Your task to perform on an android device: Empty the shopping cart on bestbuy. Search for "razer blade" on bestbuy, select the first entry, add it to the cart, then select checkout. Image 0: 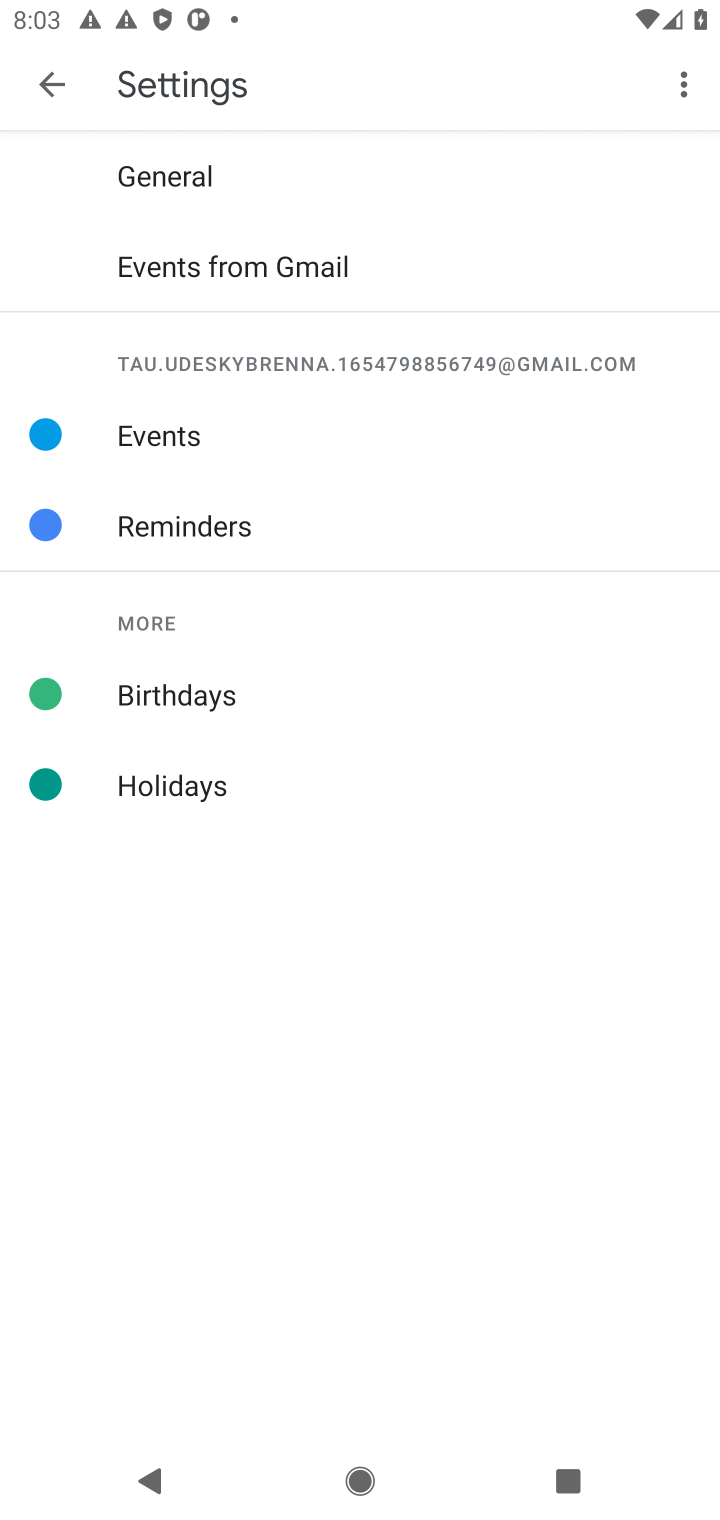
Step 0: press home button
Your task to perform on an android device: Empty the shopping cart on bestbuy. Search for "razer blade" on bestbuy, select the first entry, add it to the cart, then select checkout. Image 1: 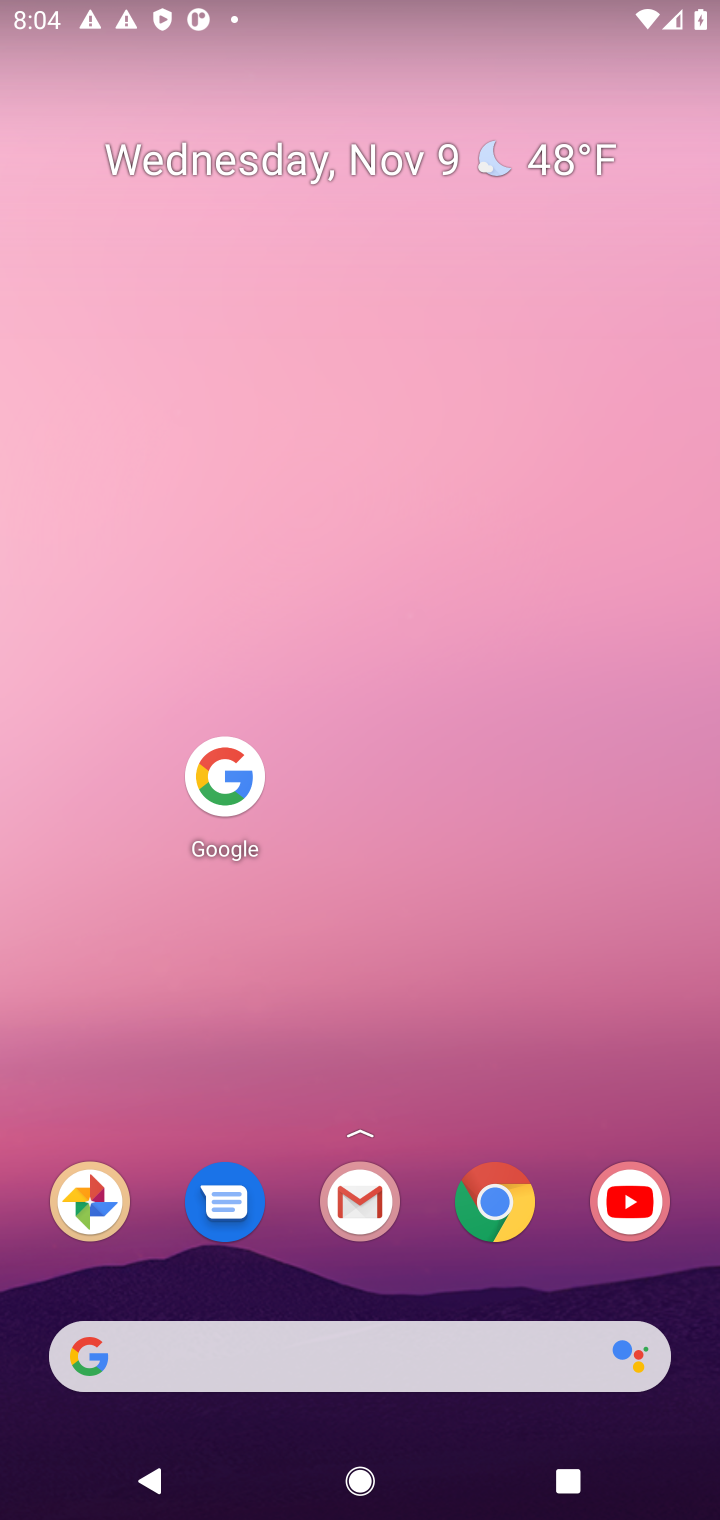
Step 1: click (242, 777)
Your task to perform on an android device: Empty the shopping cart on bestbuy. Search for "razer blade" on bestbuy, select the first entry, add it to the cart, then select checkout. Image 2: 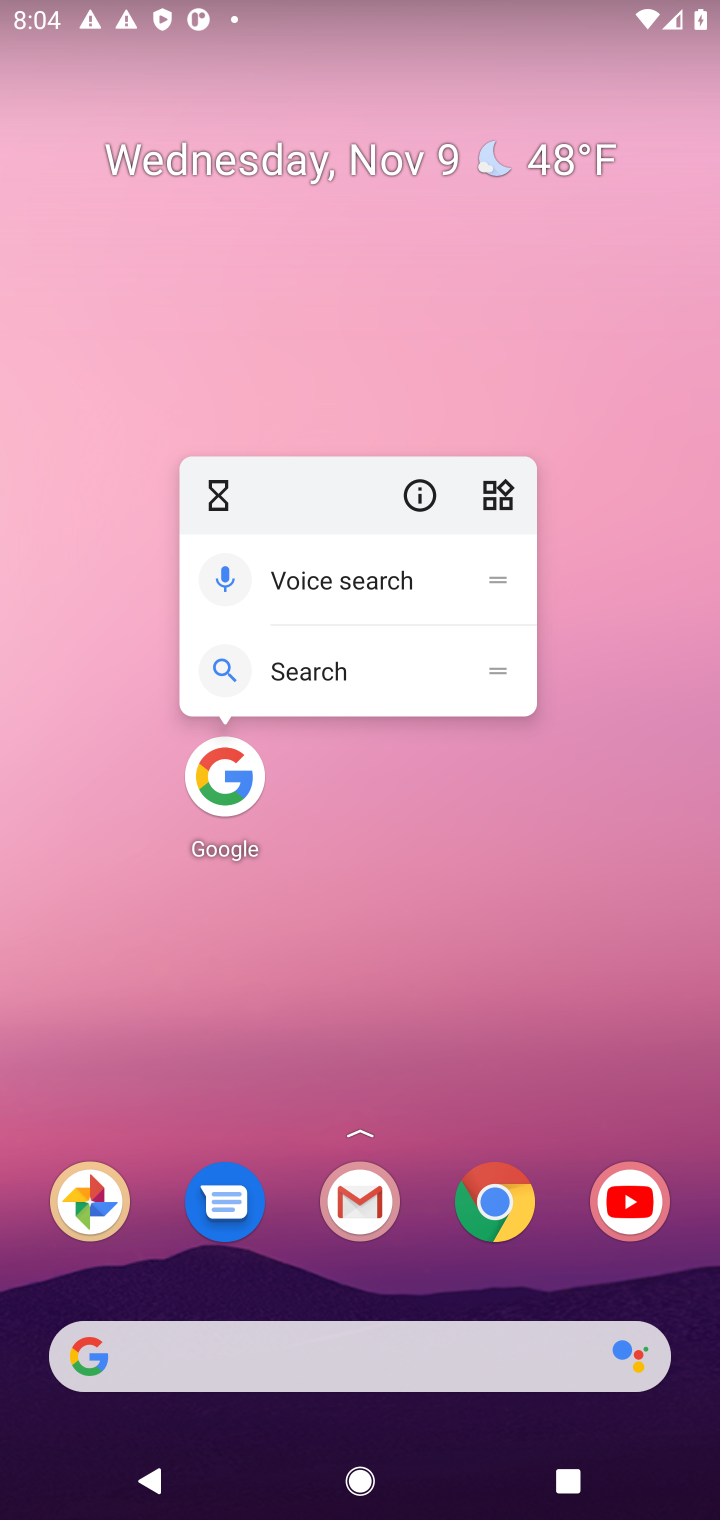
Step 2: click (246, 773)
Your task to perform on an android device: Empty the shopping cart on bestbuy. Search for "razer blade" on bestbuy, select the first entry, add it to the cart, then select checkout. Image 3: 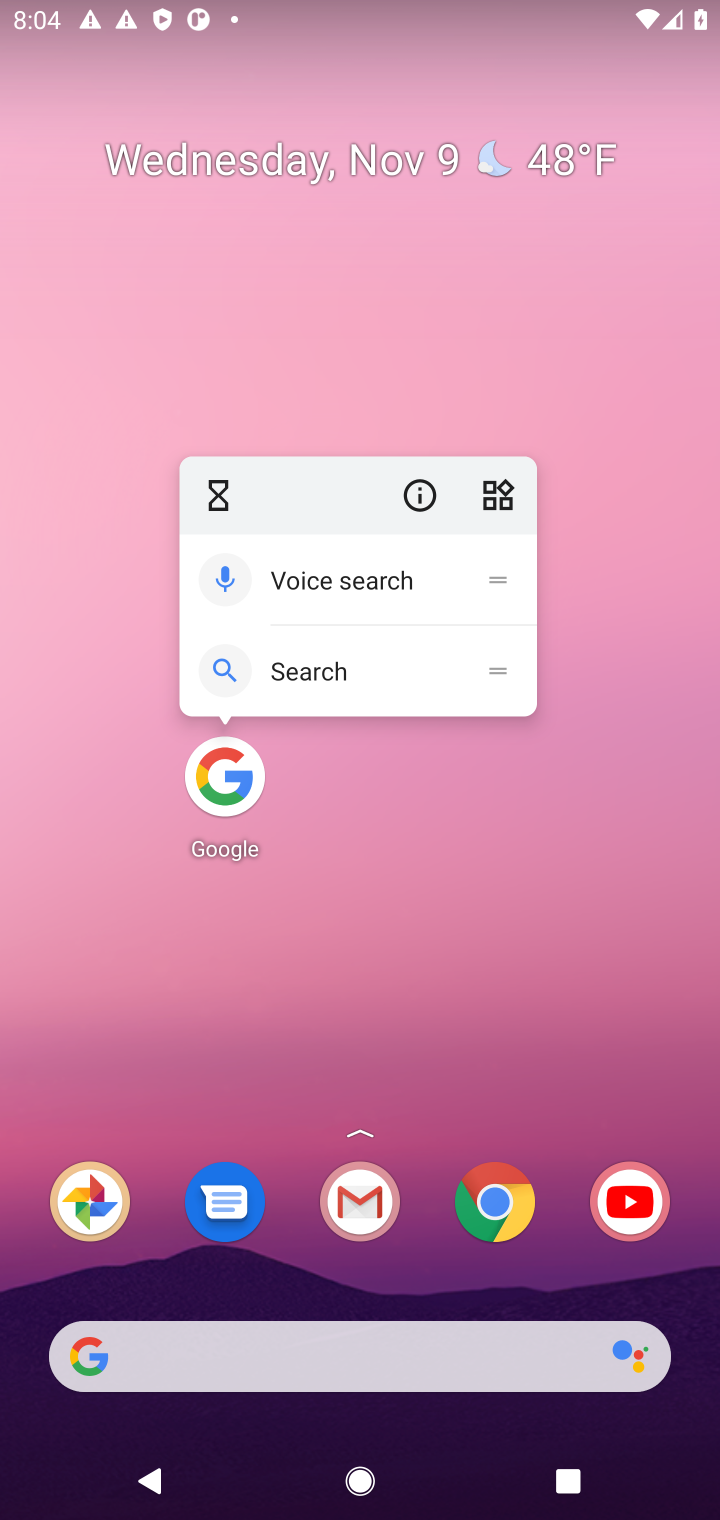
Step 3: click (225, 761)
Your task to perform on an android device: Empty the shopping cart on bestbuy. Search for "razer blade" on bestbuy, select the first entry, add it to the cart, then select checkout. Image 4: 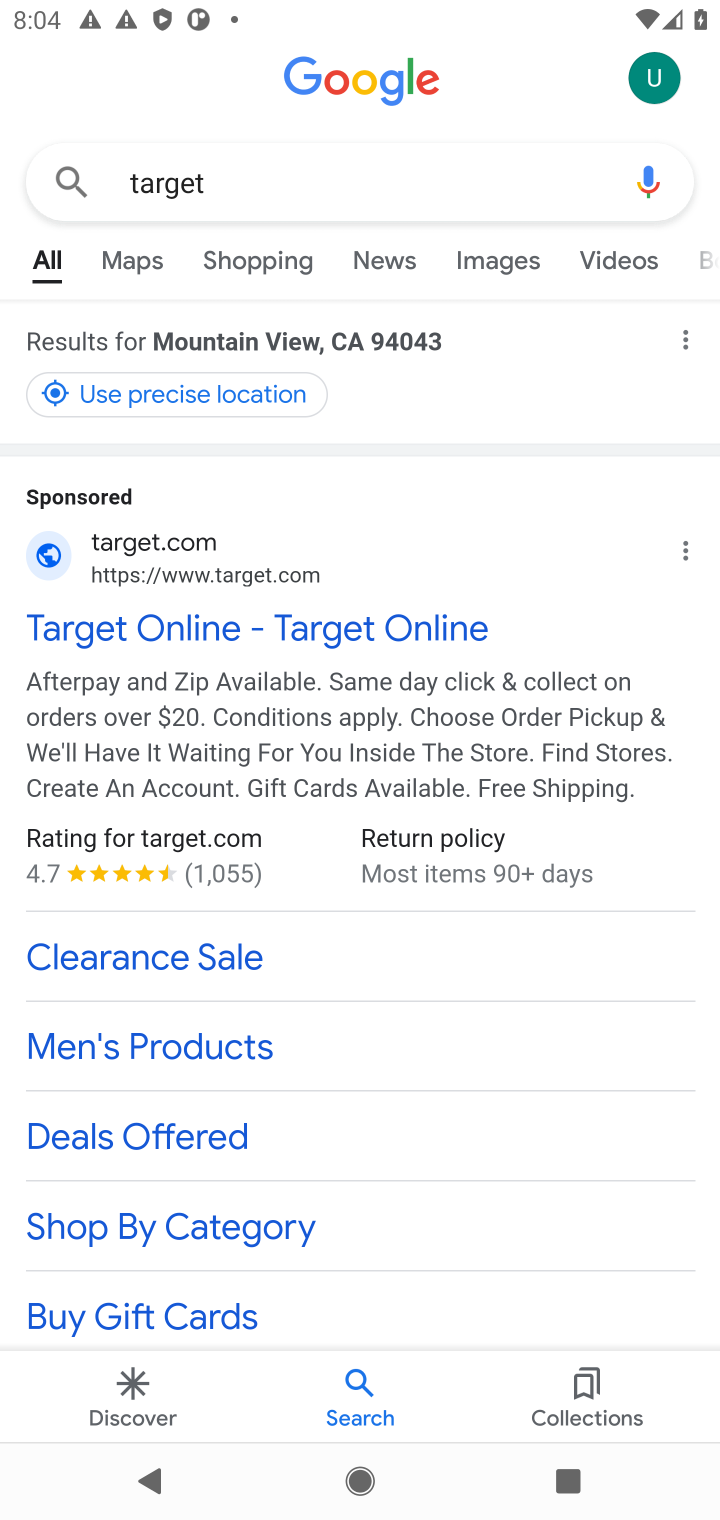
Step 4: click (263, 173)
Your task to perform on an android device: Empty the shopping cart on bestbuy. Search for "razer blade" on bestbuy, select the first entry, add it to the cart, then select checkout. Image 5: 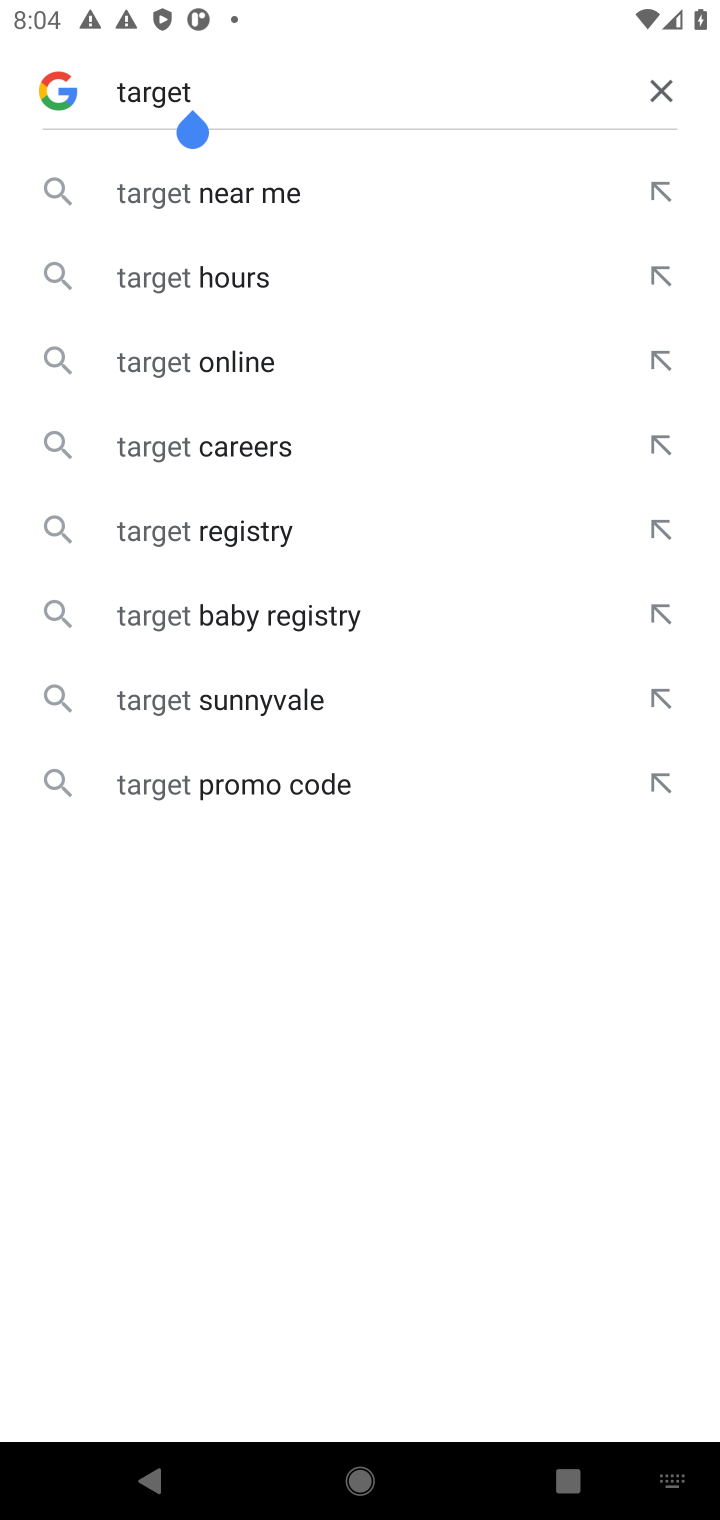
Step 5: click (663, 87)
Your task to perform on an android device: Empty the shopping cart on bestbuy. Search for "razer blade" on bestbuy, select the first entry, add it to the cart, then select checkout. Image 6: 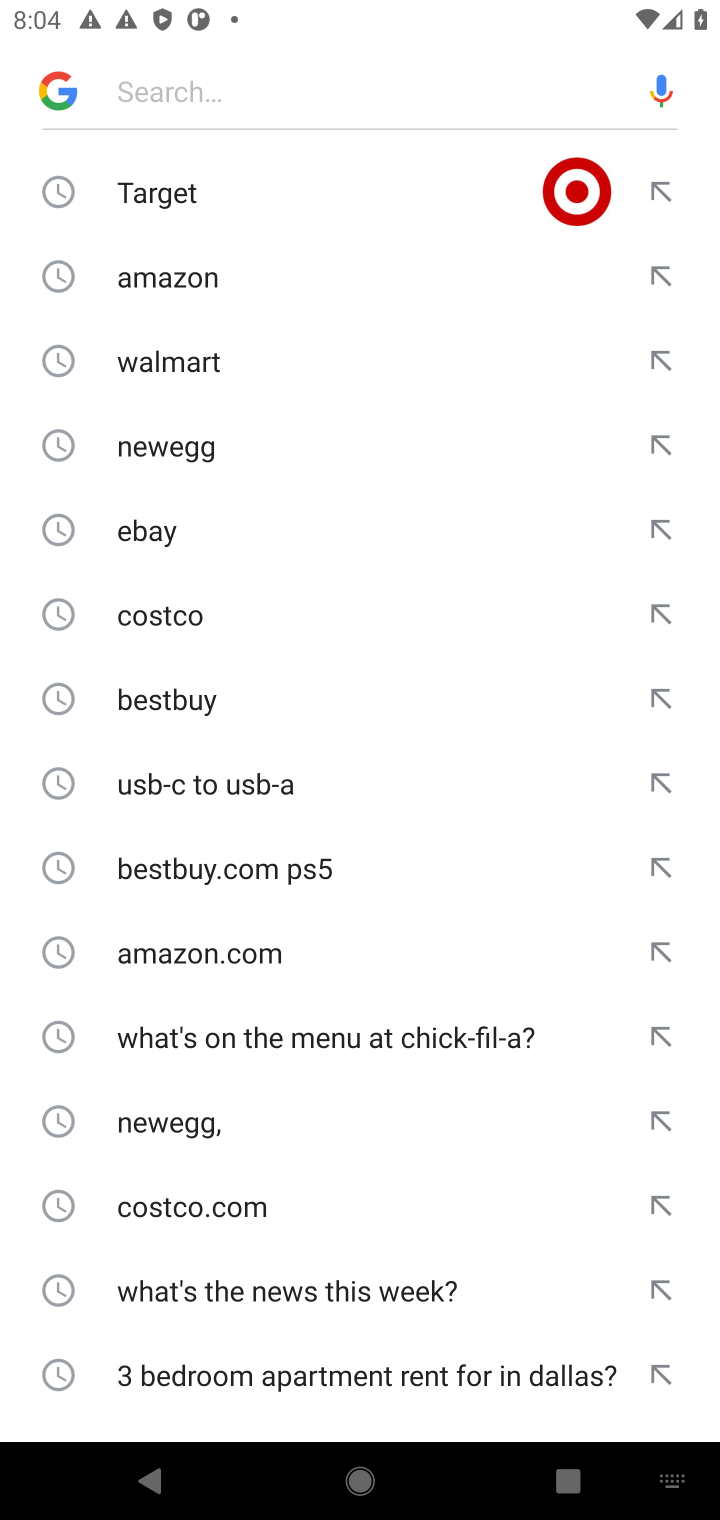
Step 6: click (171, 688)
Your task to perform on an android device: Empty the shopping cart on bestbuy. Search for "razer blade" on bestbuy, select the first entry, add it to the cart, then select checkout. Image 7: 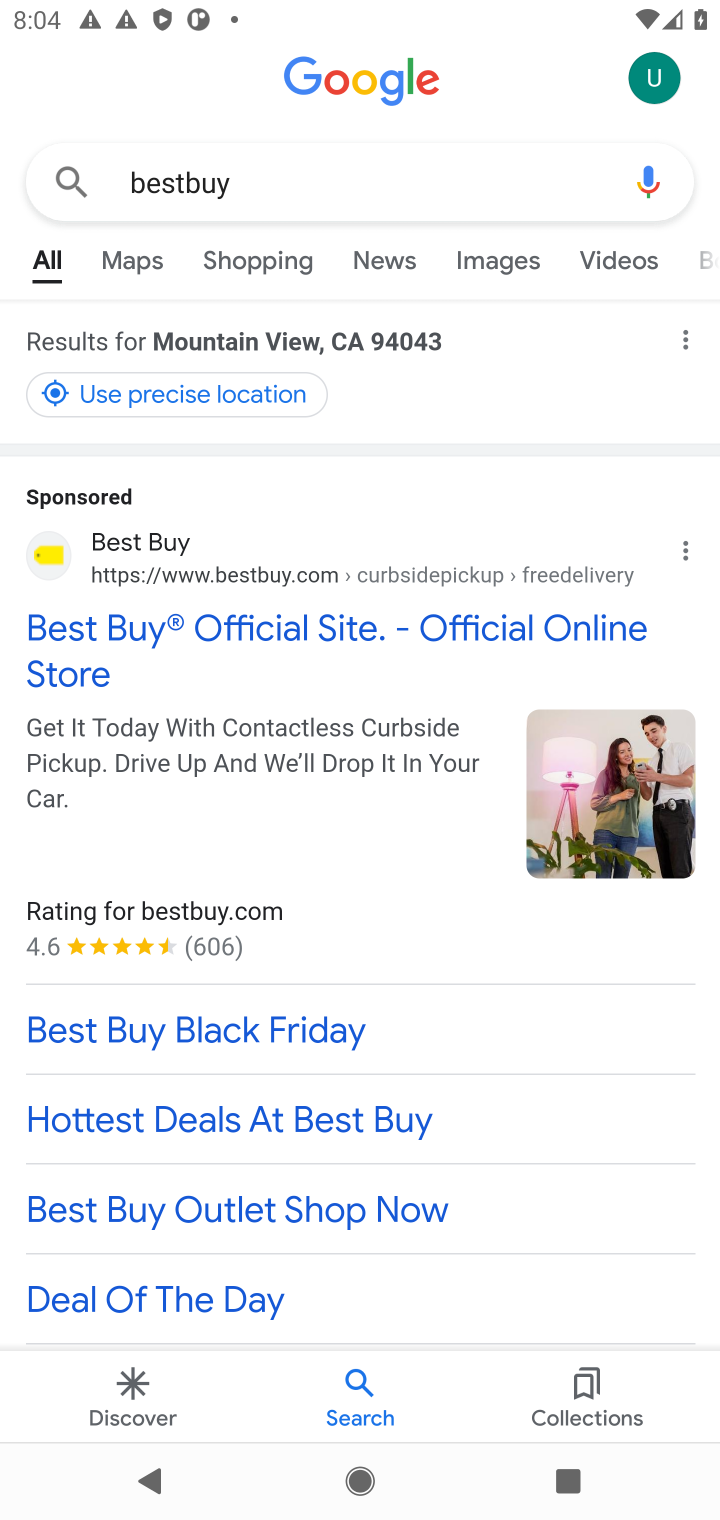
Step 7: click (231, 625)
Your task to perform on an android device: Empty the shopping cart on bestbuy. Search for "razer blade" on bestbuy, select the first entry, add it to the cart, then select checkout. Image 8: 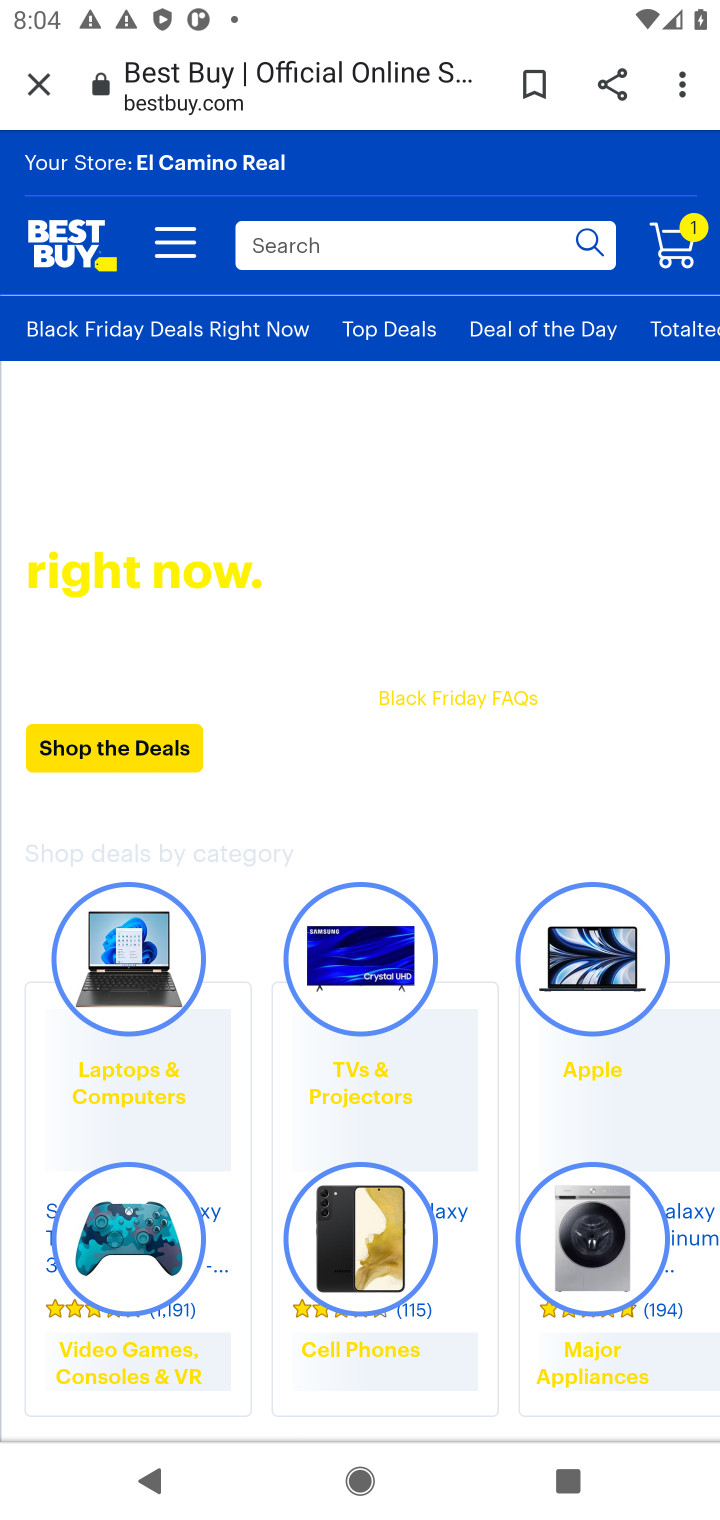
Step 8: click (674, 251)
Your task to perform on an android device: Empty the shopping cart on bestbuy. Search for "razer blade" on bestbuy, select the first entry, add it to the cart, then select checkout. Image 9: 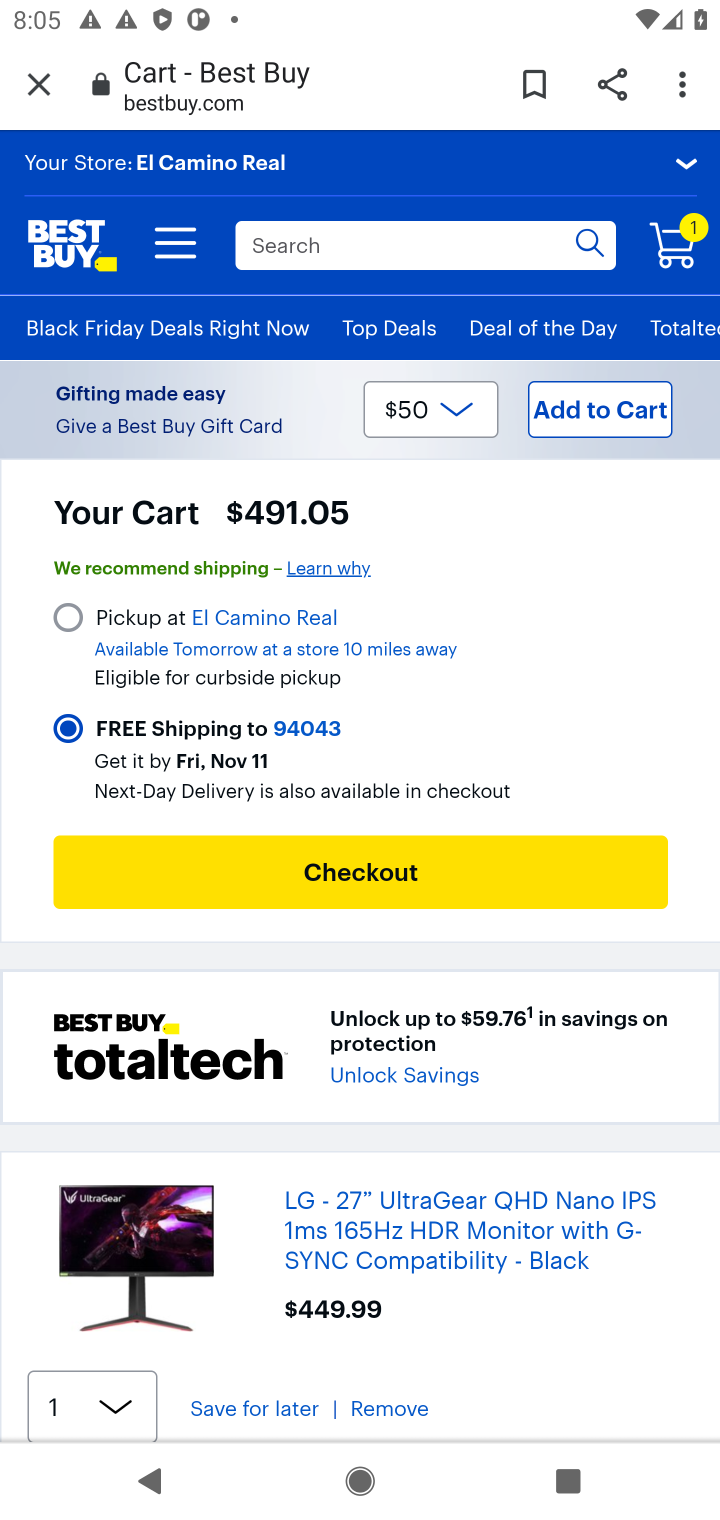
Step 9: drag from (376, 1116) to (638, 342)
Your task to perform on an android device: Empty the shopping cart on bestbuy. Search for "razer blade" on bestbuy, select the first entry, add it to the cart, then select checkout. Image 10: 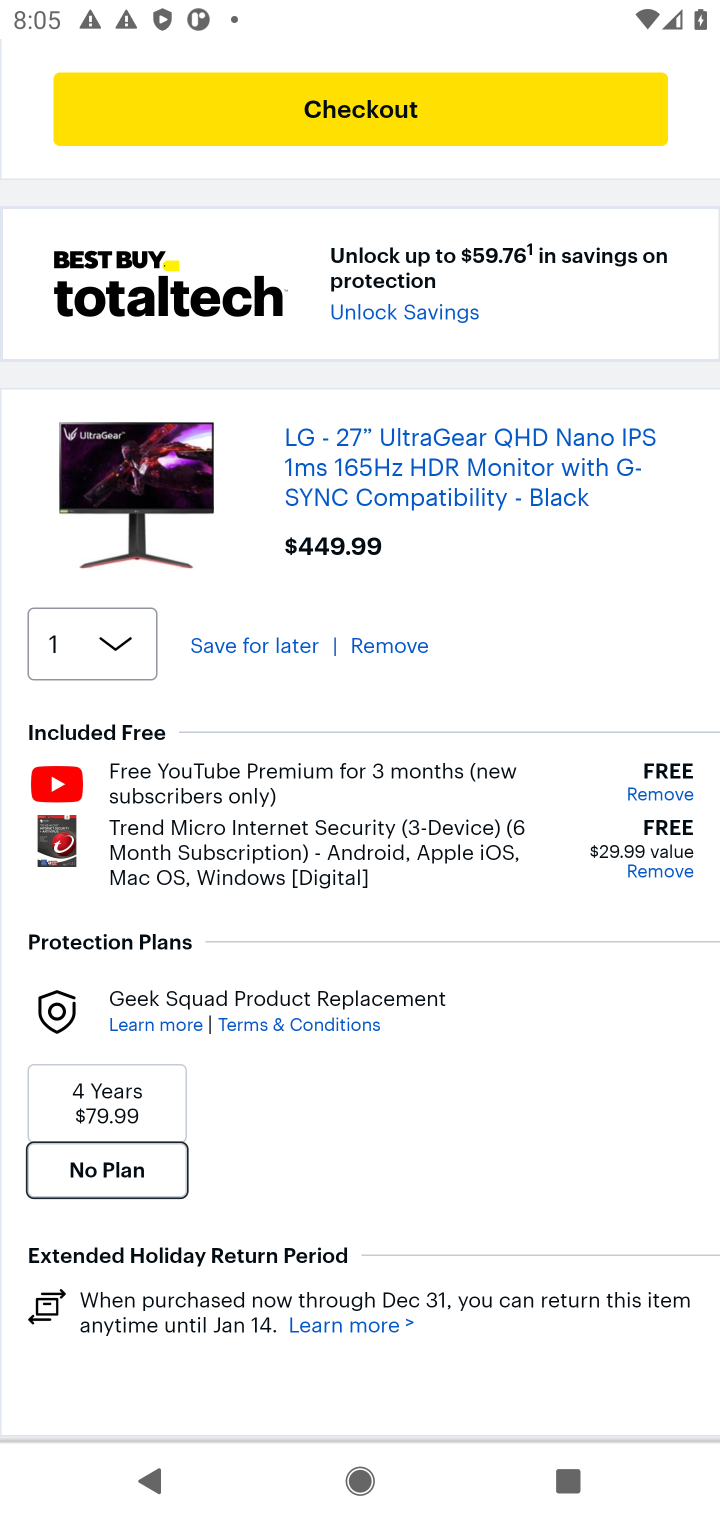
Step 10: click (390, 645)
Your task to perform on an android device: Empty the shopping cart on bestbuy. Search for "razer blade" on bestbuy, select the first entry, add it to the cart, then select checkout. Image 11: 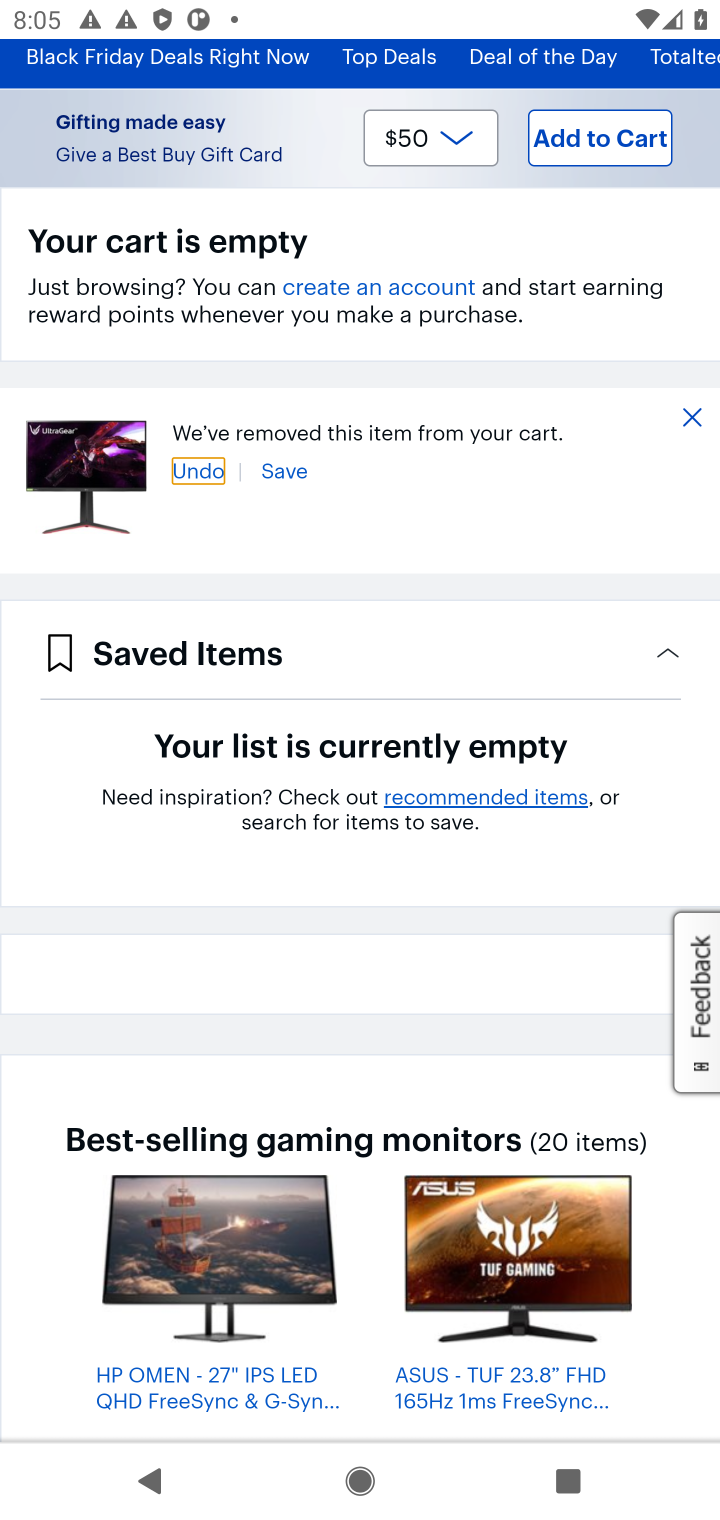
Step 11: drag from (532, 402) to (449, 1251)
Your task to perform on an android device: Empty the shopping cart on bestbuy. Search for "razer blade" on bestbuy, select the first entry, add it to the cart, then select checkout. Image 12: 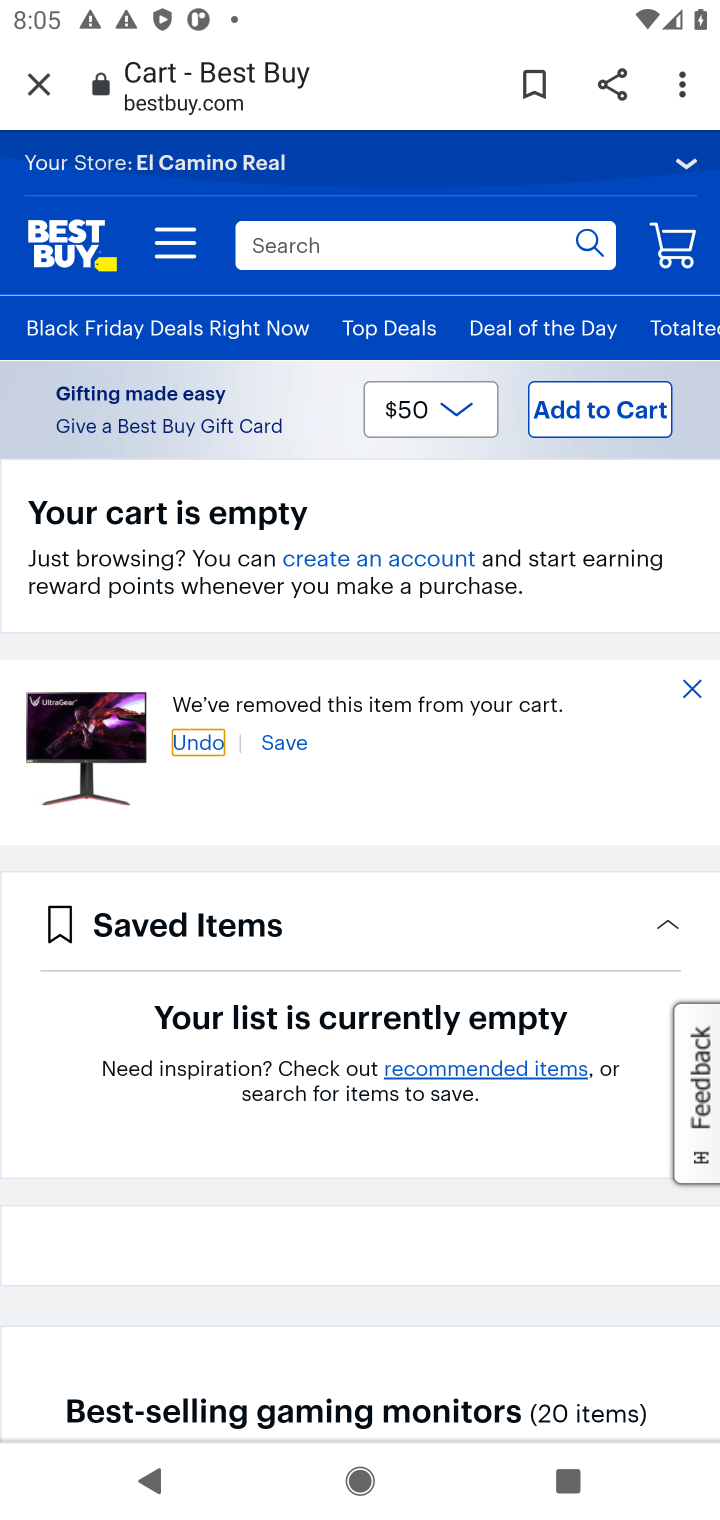
Step 12: click (372, 245)
Your task to perform on an android device: Empty the shopping cart on bestbuy. Search for "razer blade" on bestbuy, select the first entry, add it to the cart, then select checkout. Image 13: 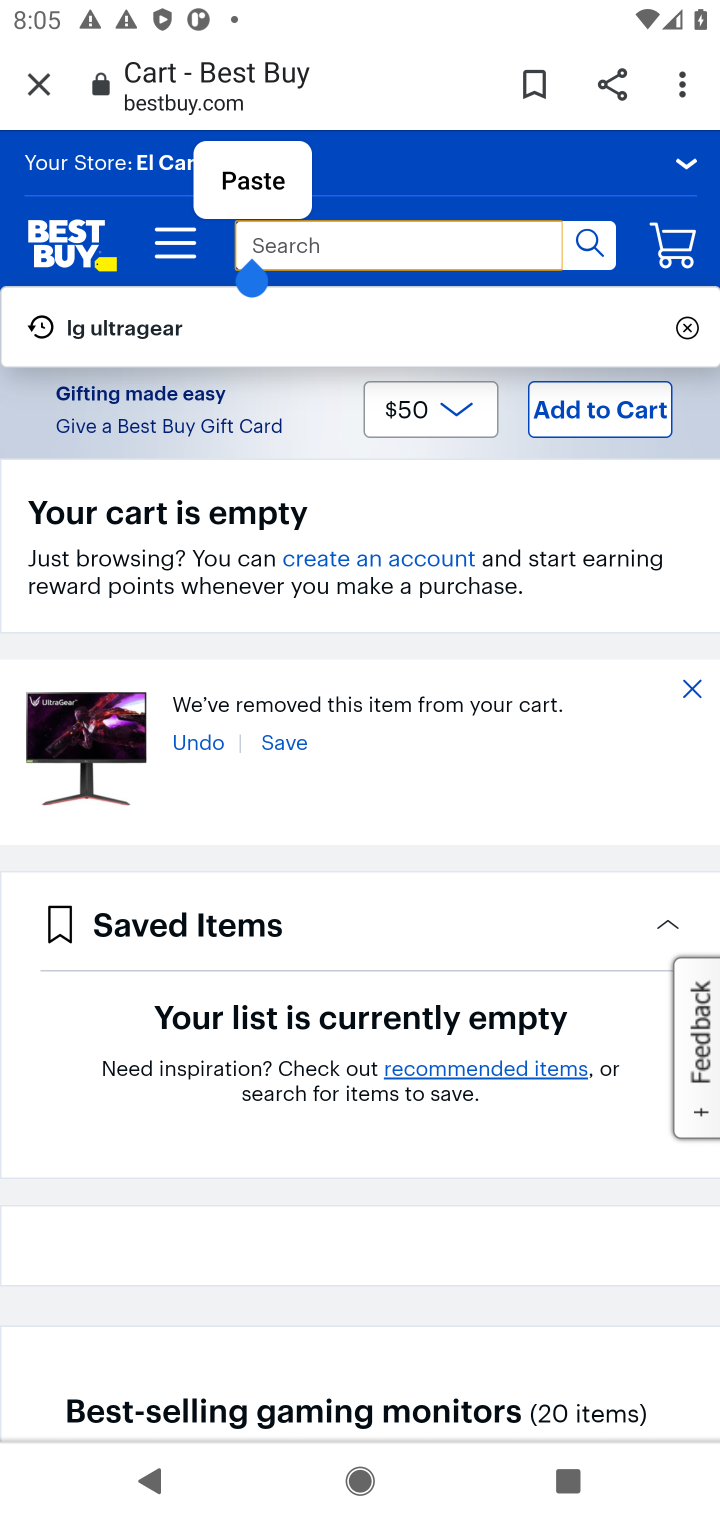
Step 13: type "razer blade"
Your task to perform on an android device: Empty the shopping cart on bestbuy. Search for "razer blade" on bestbuy, select the first entry, add it to the cart, then select checkout. Image 14: 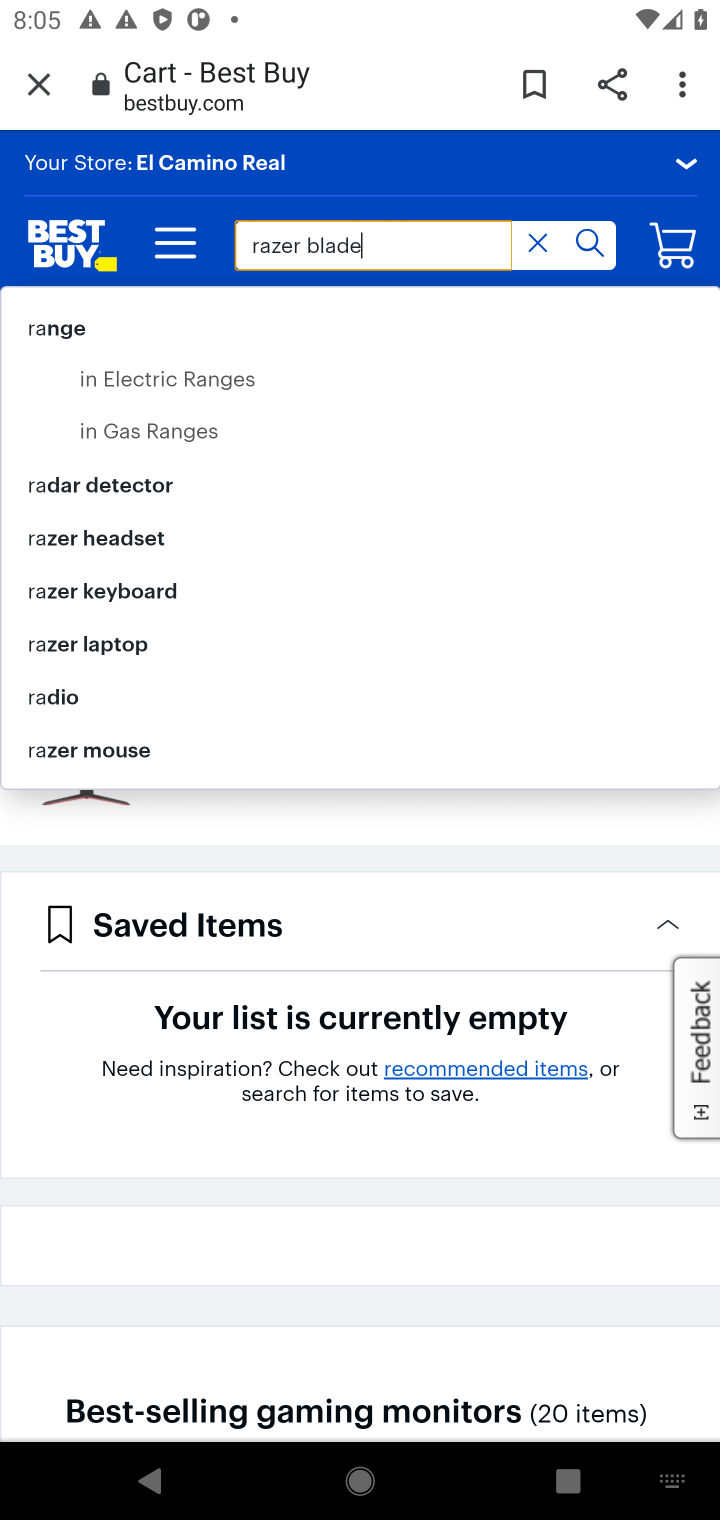
Step 14: press enter
Your task to perform on an android device: Empty the shopping cart on bestbuy. Search for "razer blade" on bestbuy, select the first entry, add it to the cart, then select checkout. Image 15: 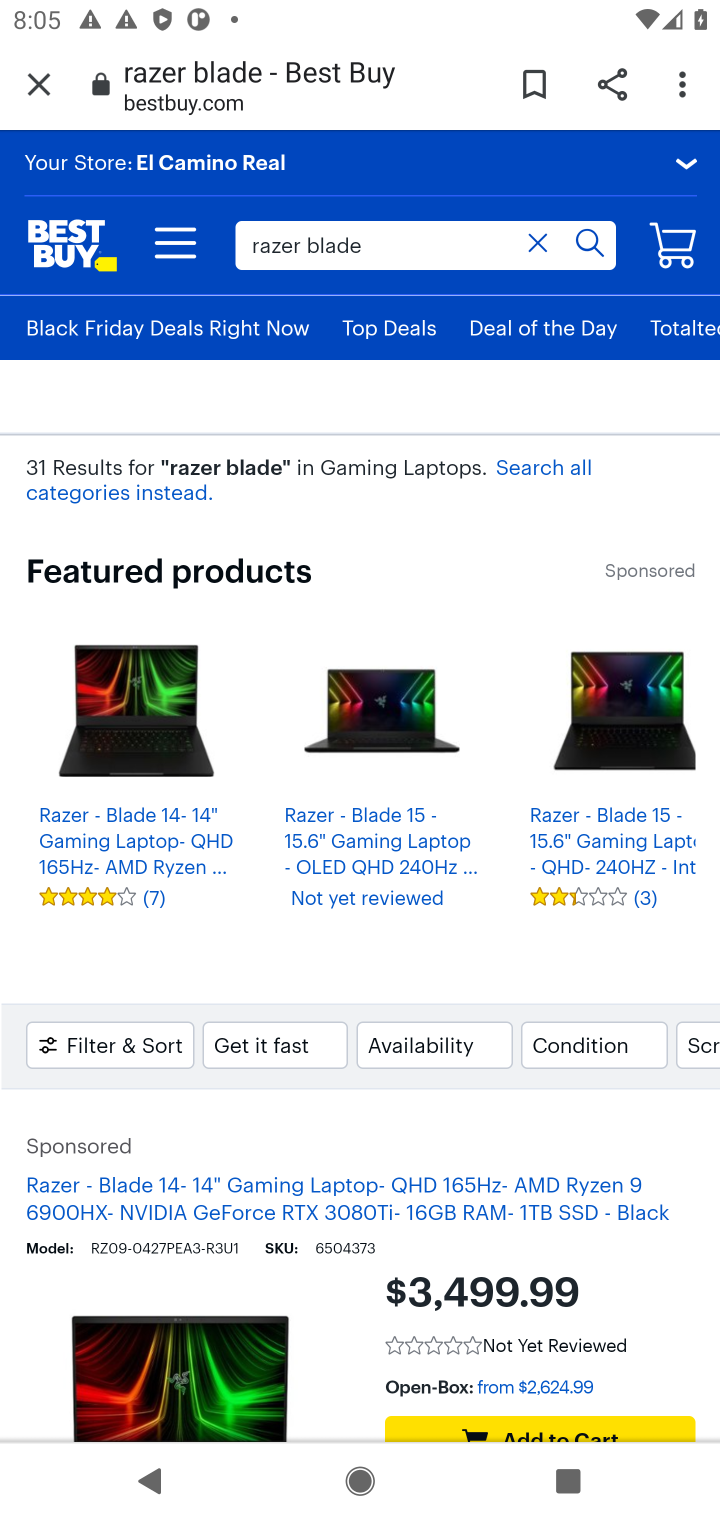
Step 15: drag from (284, 1187) to (559, 614)
Your task to perform on an android device: Empty the shopping cart on bestbuy. Search for "razer blade" on bestbuy, select the first entry, add it to the cart, then select checkout. Image 16: 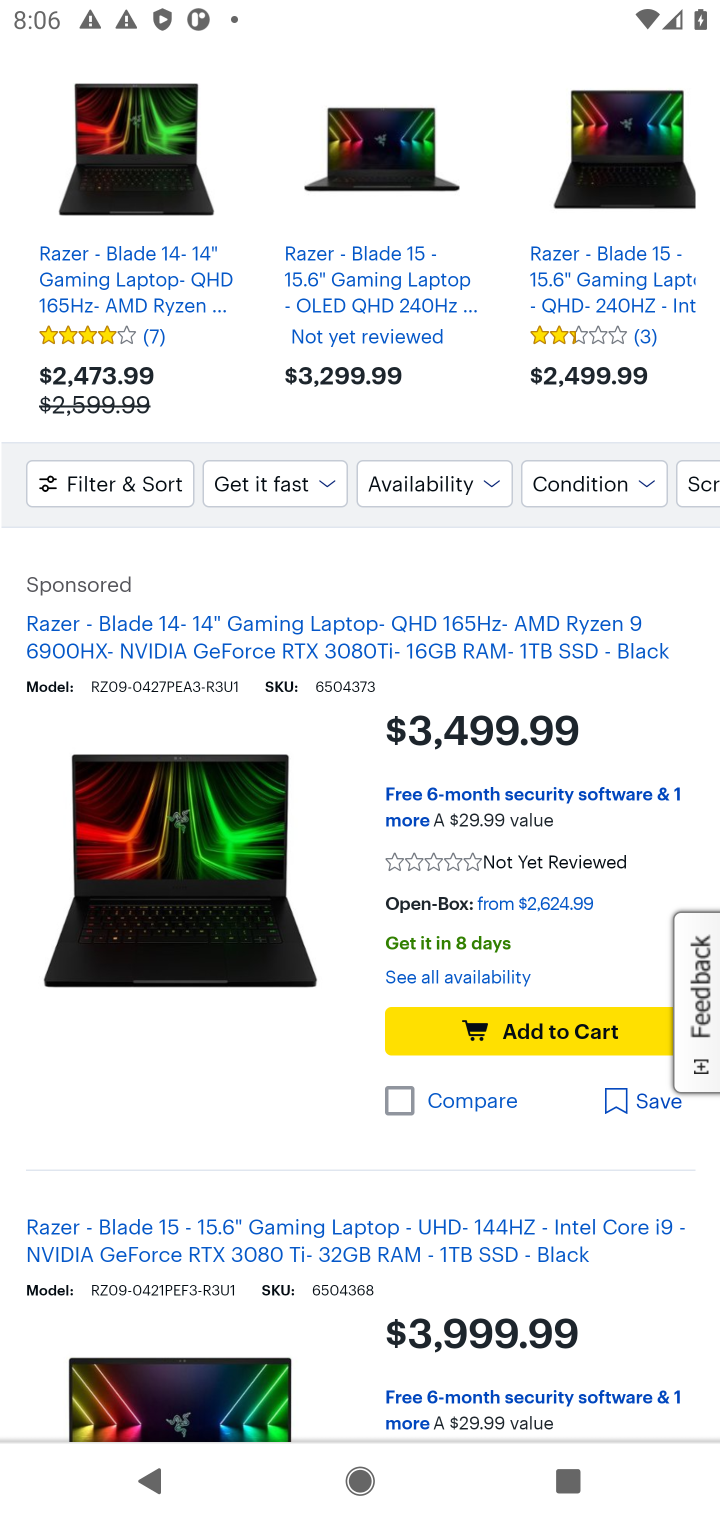
Step 16: click (547, 1029)
Your task to perform on an android device: Empty the shopping cart on bestbuy. Search for "razer blade" on bestbuy, select the first entry, add it to the cart, then select checkout. Image 17: 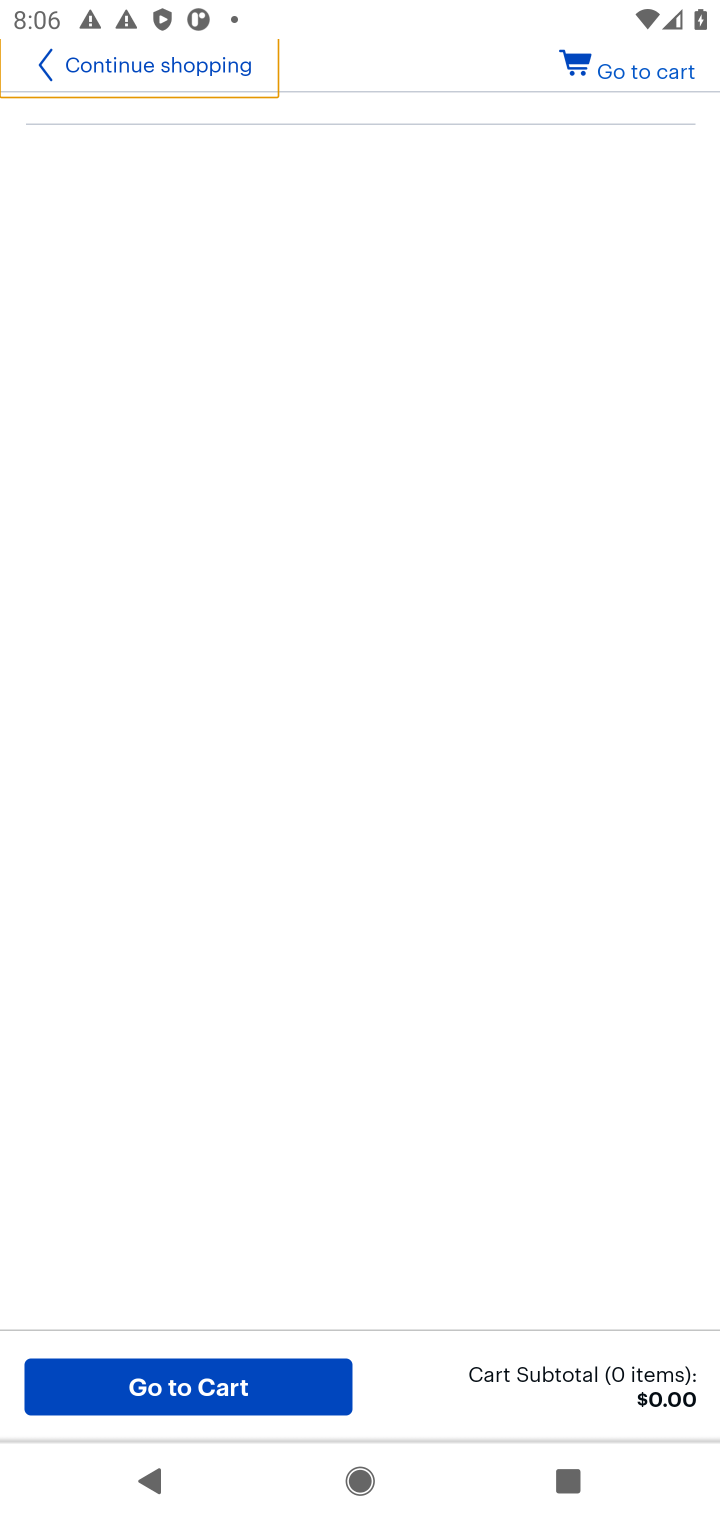
Step 17: drag from (546, 562) to (481, 1177)
Your task to perform on an android device: Empty the shopping cart on bestbuy. Search for "razer blade" on bestbuy, select the first entry, add it to the cart, then select checkout. Image 18: 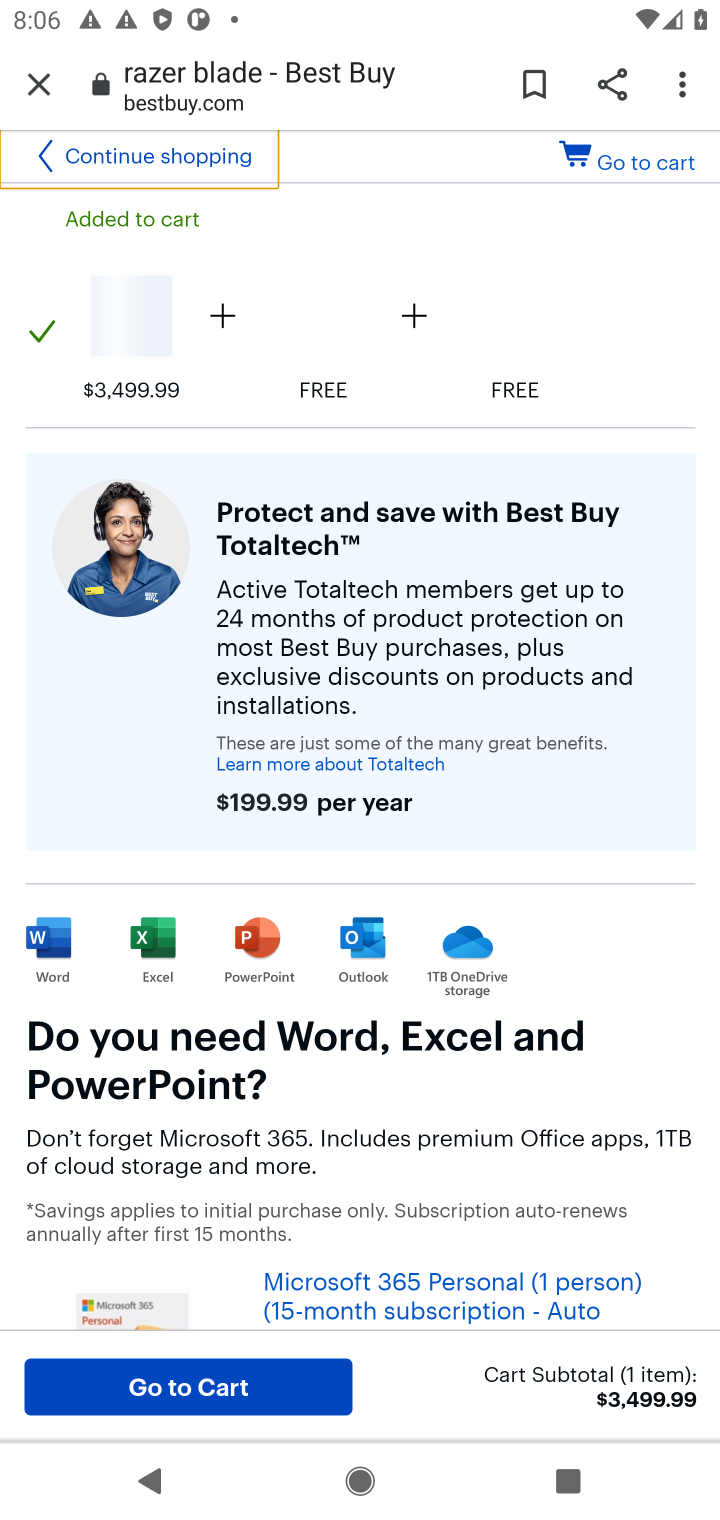
Step 18: click (647, 155)
Your task to perform on an android device: Empty the shopping cart on bestbuy. Search for "razer blade" on bestbuy, select the first entry, add it to the cart, then select checkout. Image 19: 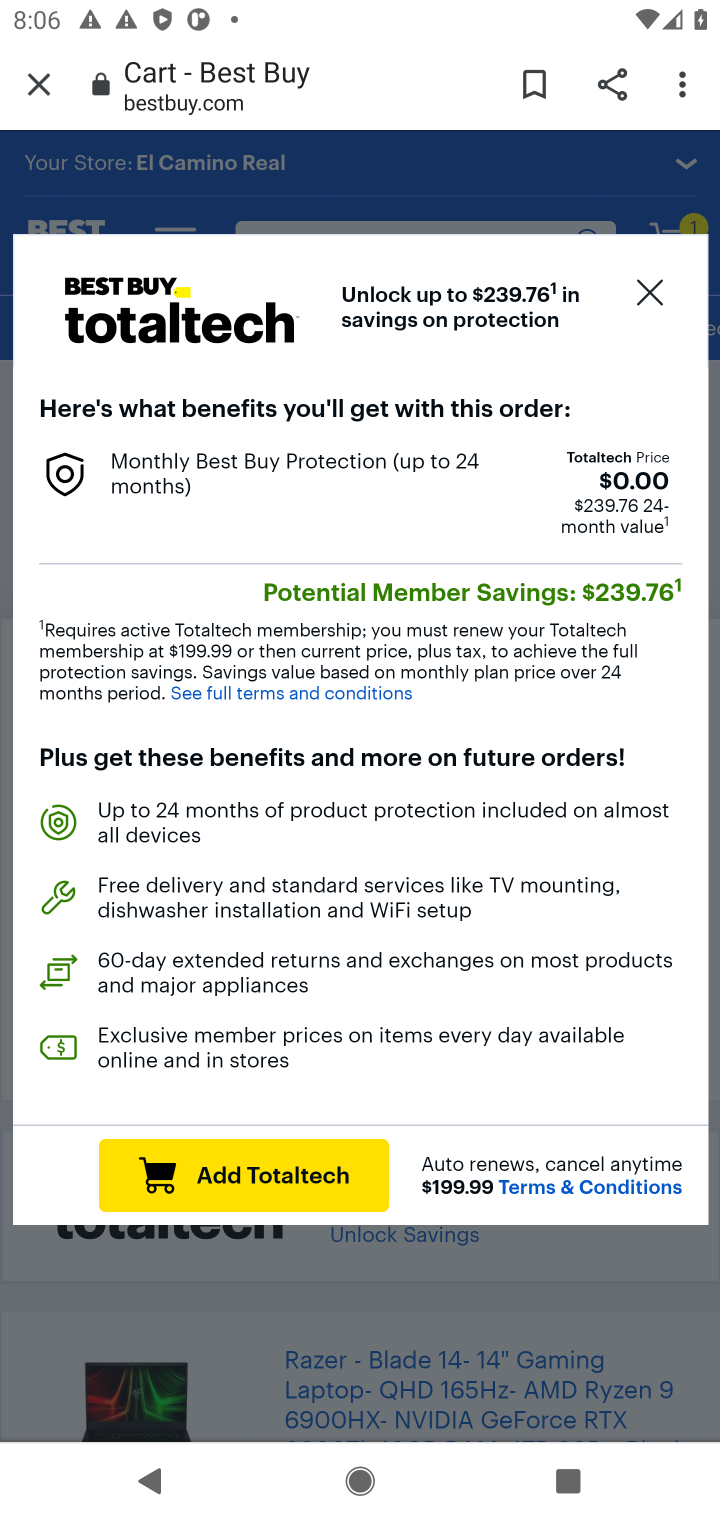
Step 19: click (654, 286)
Your task to perform on an android device: Empty the shopping cart on bestbuy. Search for "razer blade" on bestbuy, select the first entry, add it to the cart, then select checkout. Image 20: 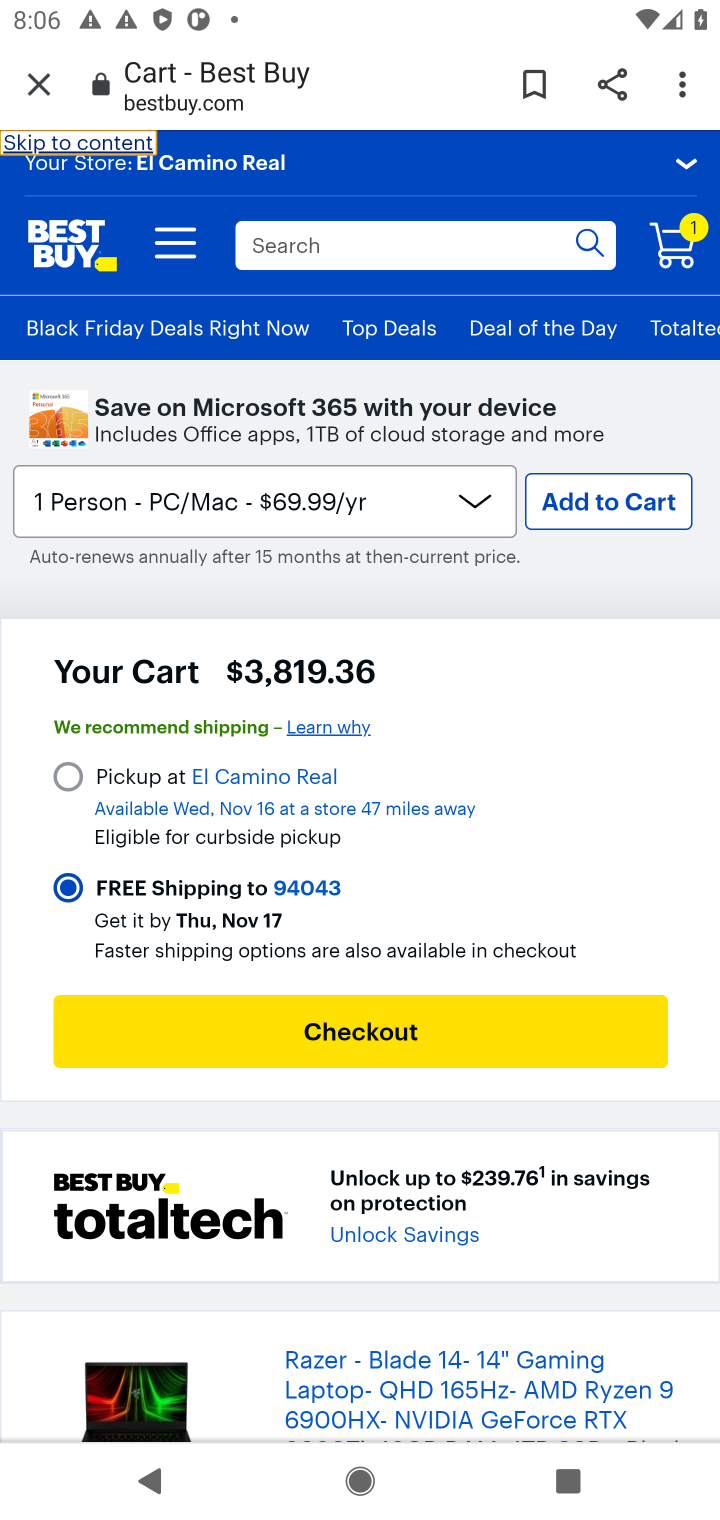
Step 20: click (368, 1035)
Your task to perform on an android device: Empty the shopping cart on bestbuy. Search for "razer blade" on bestbuy, select the first entry, add it to the cart, then select checkout. Image 21: 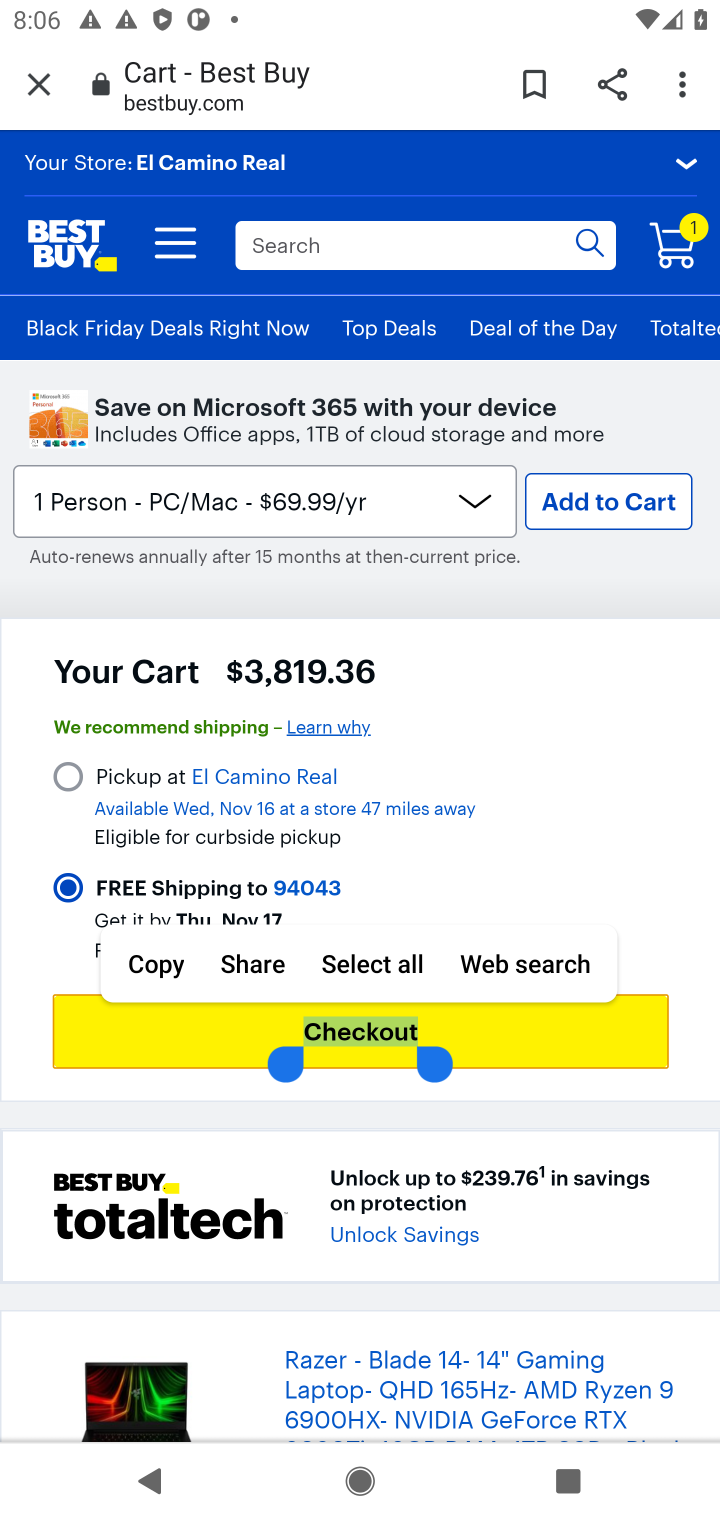
Step 21: click (360, 1042)
Your task to perform on an android device: Empty the shopping cart on bestbuy. Search for "razer blade" on bestbuy, select the first entry, add it to the cart, then select checkout. Image 22: 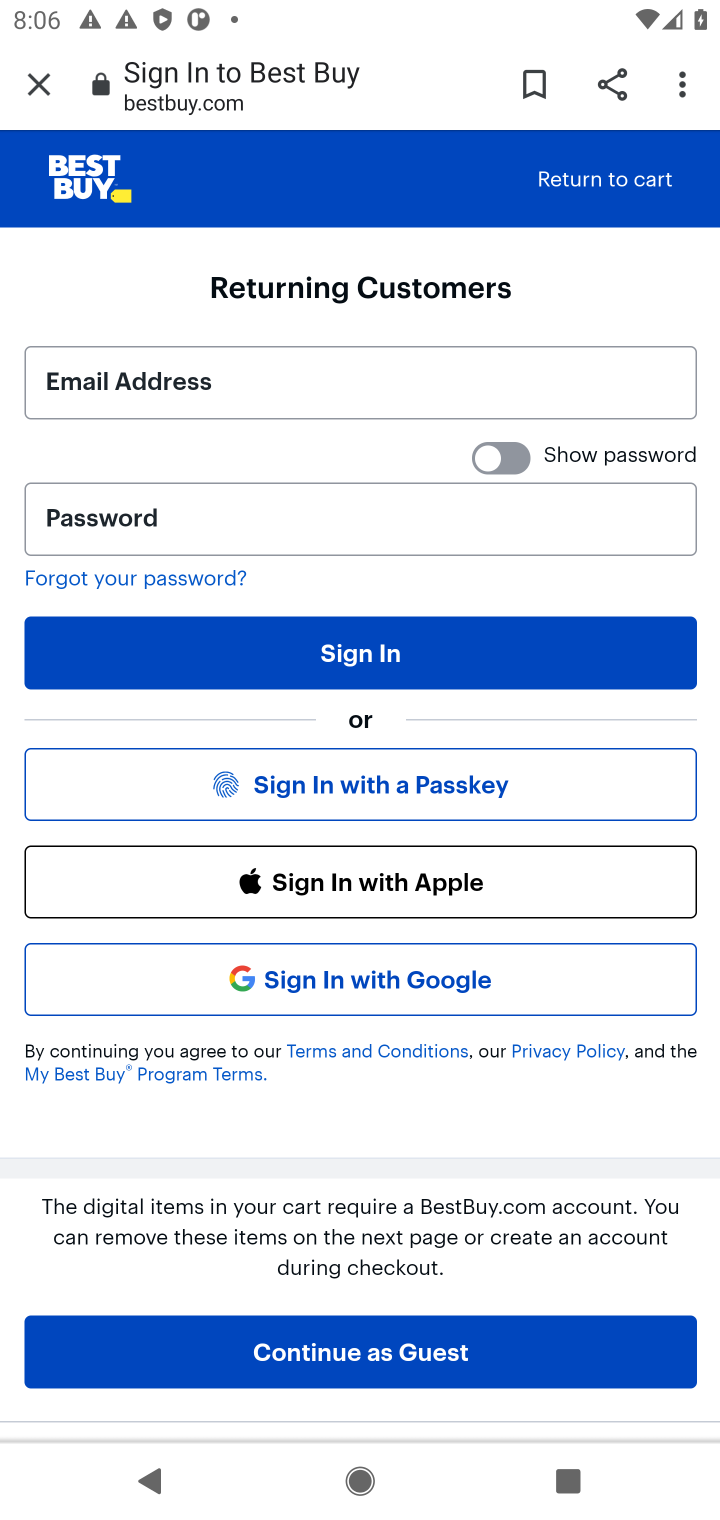
Step 22: task complete